Your task to perform on an android device: turn on improve location accuracy Image 0: 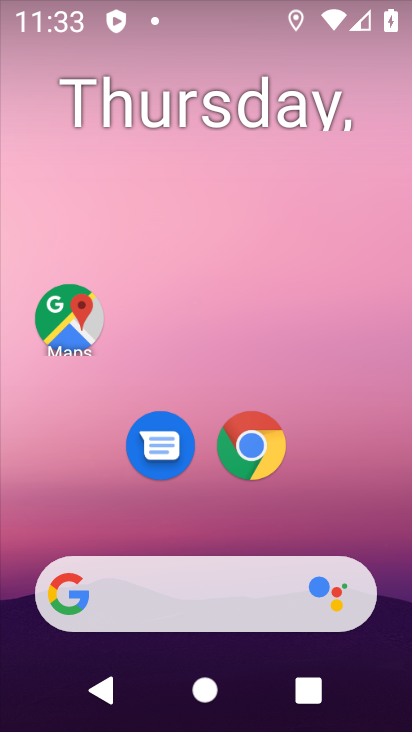
Step 0: drag from (390, 610) to (255, 113)
Your task to perform on an android device: turn on improve location accuracy Image 1: 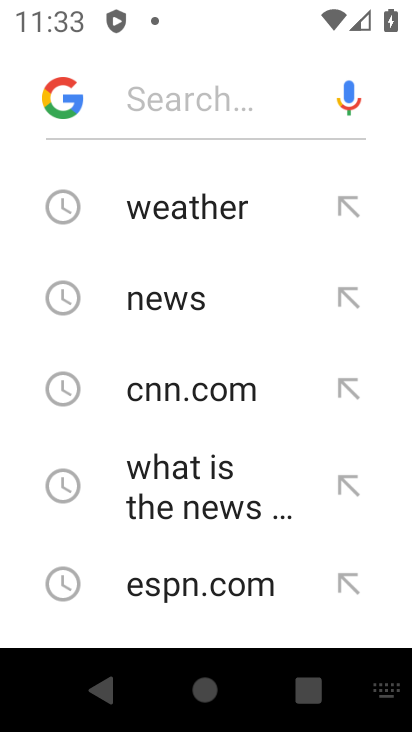
Step 1: press home button
Your task to perform on an android device: turn on improve location accuracy Image 2: 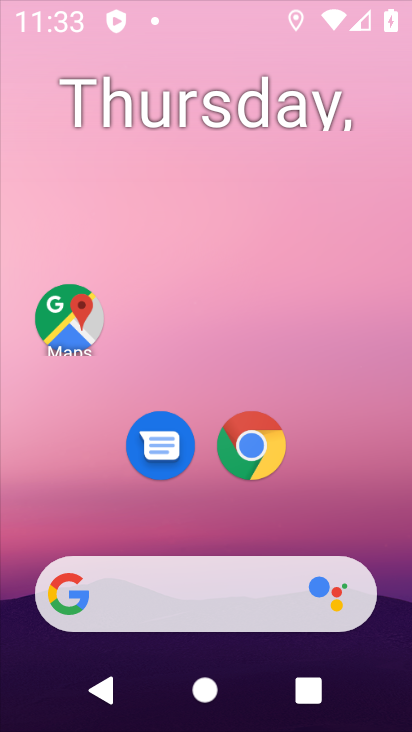
Step 2: drag from (390, 618) to (224, 65)
Your task to perform on an android device: turn on improve location accuracy Image 3: 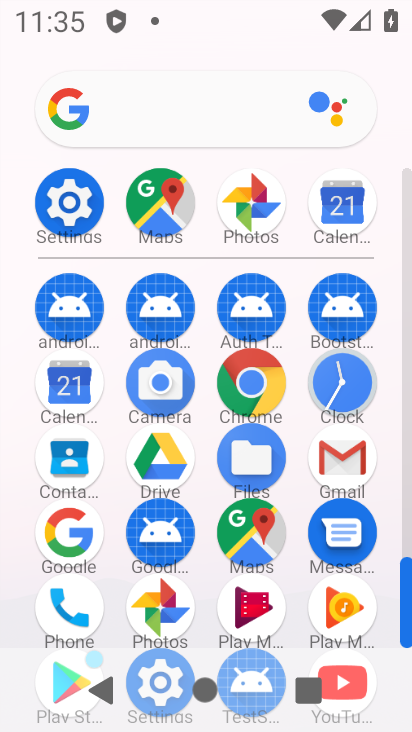
Step 3: click (72, 195)
Your task to perform on an android device: turn on improve location accuracy Image 4: 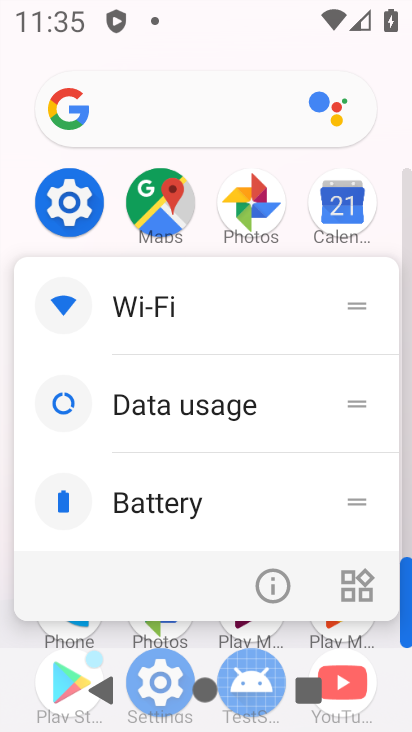
Step 4: click (71, 195)
Your task to perform on an android device: turn on improve location accuracy Image 5: 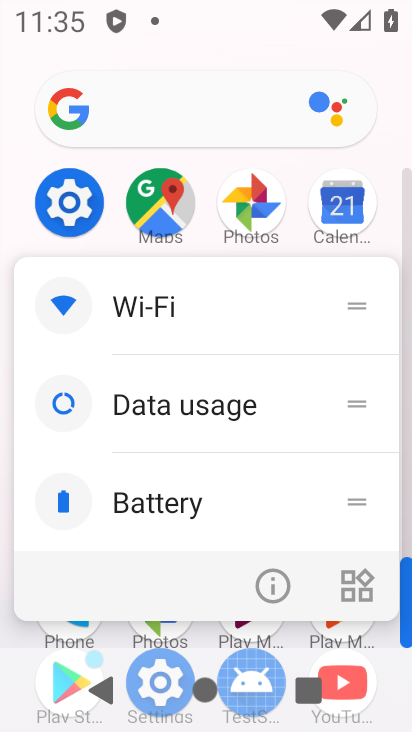
Step 5: click (71, 195)
Your task to perform on an android device: turn on improve location accuracy Image 6: 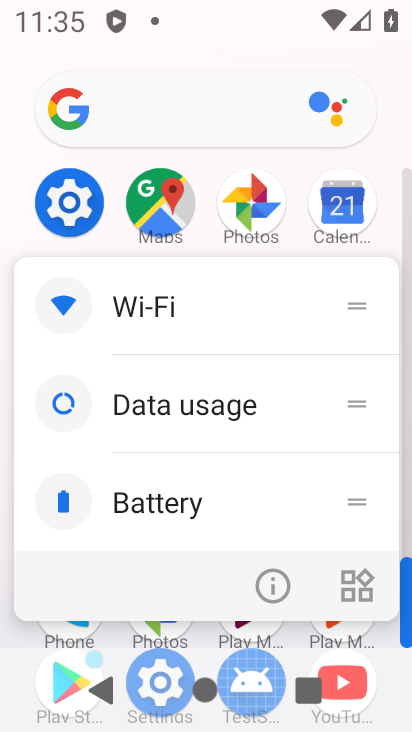
Step 6: click (69, 207)
Your task to perform on an android device: turn on improve location accuracy Image 7: 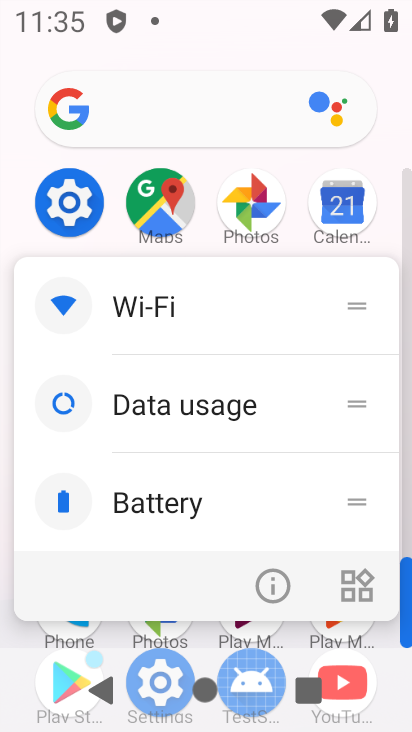
Step 7: click (69, 207)
Your task to perform on an android device: turn on improve location accuracy Image 8: 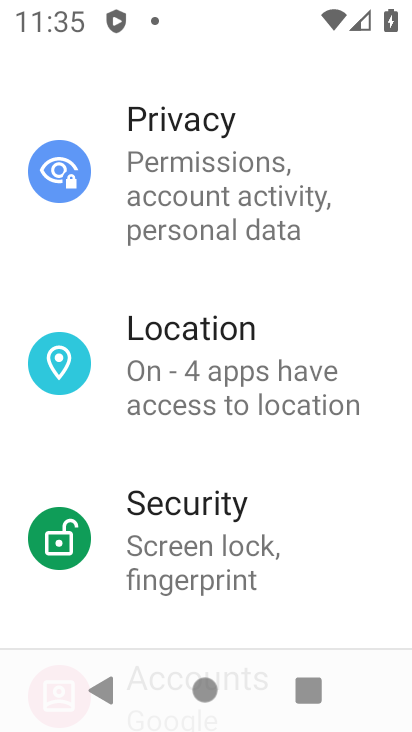
Step 8: click (230, 375)
Your task to perform on an android device: turn on improve location accuracy Image 9: 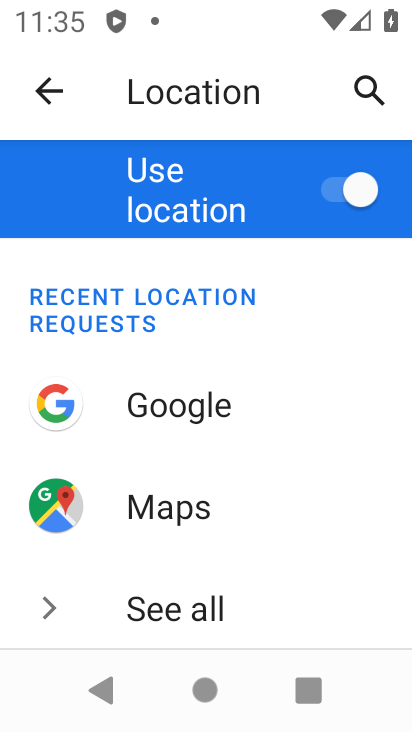
Step 9: drag from (273, 576) to (241, 91)
Your task to perform on an android device: turn on improve location accuracy Image 10: 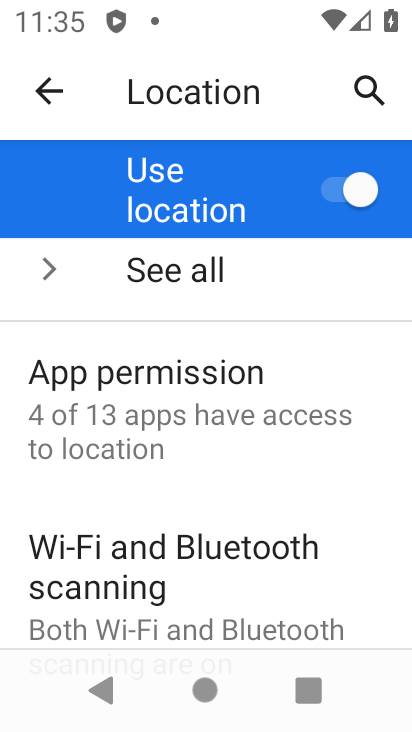
Step 10: drag from (188, 515) to (154, 112)
Your task to perform on an android device: turn on improve location accuracy Image 11: 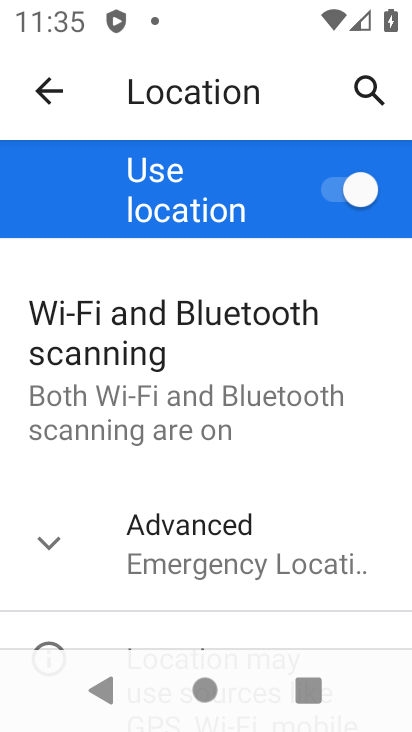
Step 11: click (100, 563)
Your task to perform on an android device: turn on improve location accuracy Image 12: 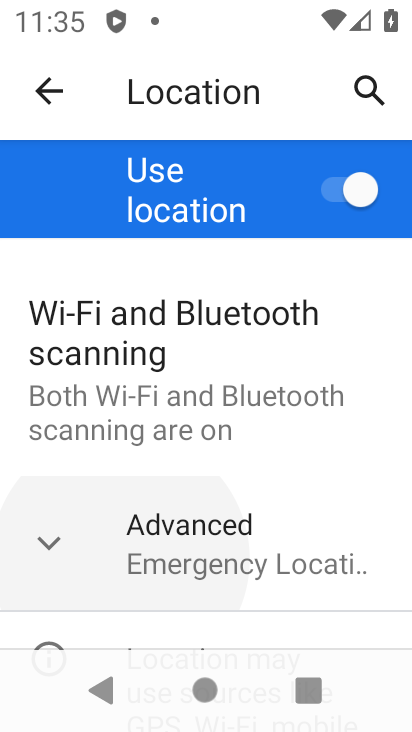
Step 12: drag from (123, 575) to (230, 179)
Your task to perform on an android device: turn on improve location accuracy Image 13: 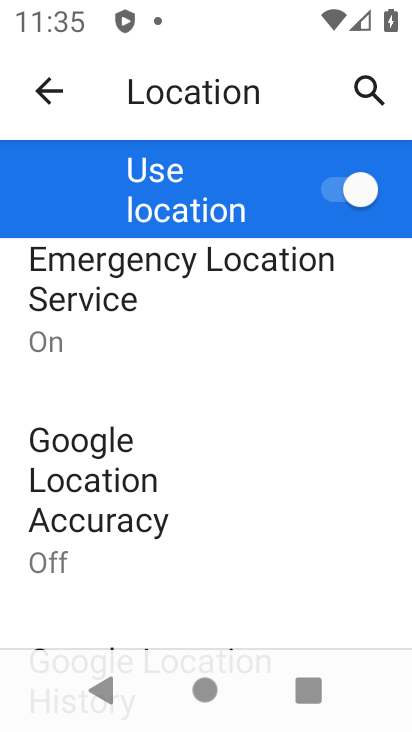
Step 13: click (236, 525)
Your task to perform on an android device: turn on improve location accuracy Image 14: 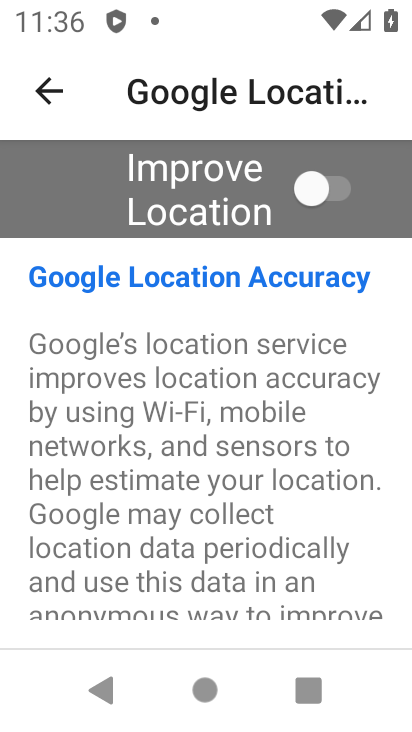
Step 14: click (304, 188)
Your task to perform on an android device: turn on improve location accuracy Image 15: 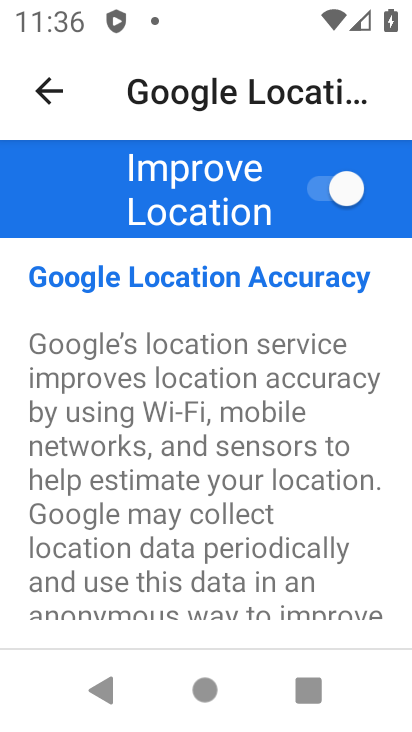
Step 15: task complete